Your task to perform on an android device: Go to Google maps Image 0: 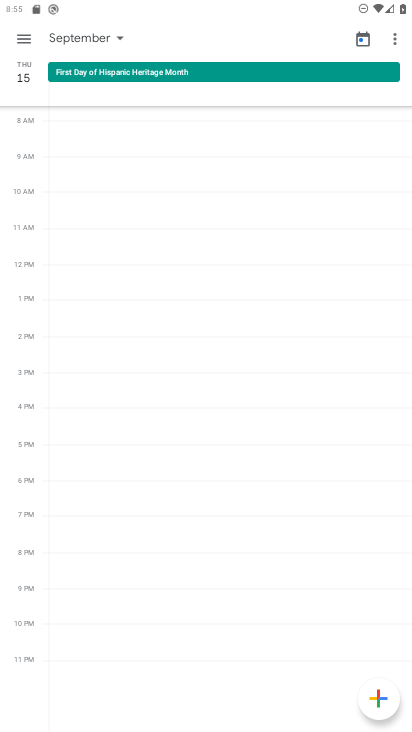
Step 0: press home button
Your task to perform on an android device: Go to Google maps Image 1: 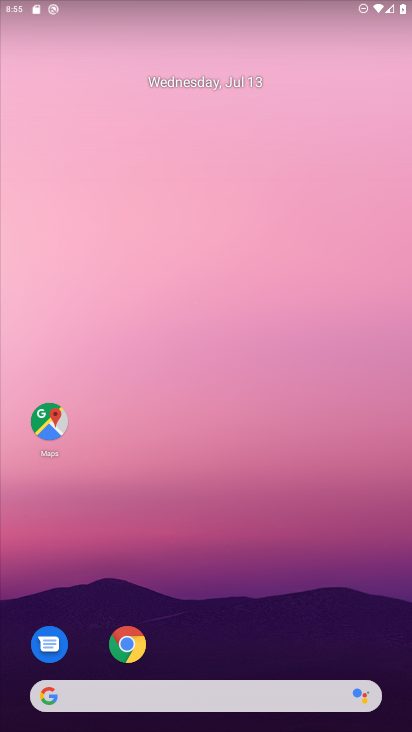
Step 1: click (49, 425)
Your task to perform on an android device: Go to Google maps Image 2: 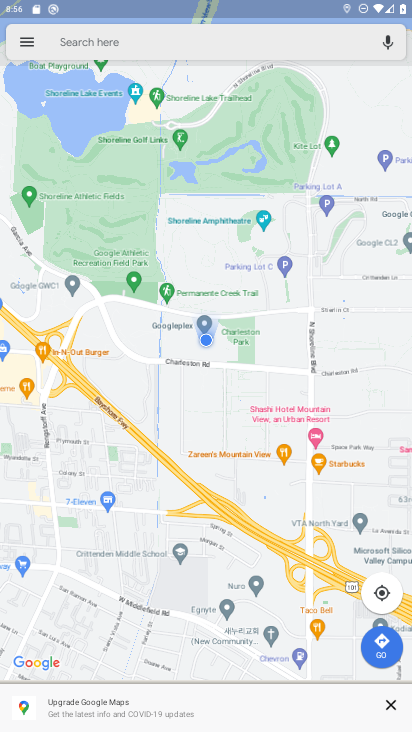
Step 2: task complete